Your task to perform on an android device: see tabs open on other devices in the chrome app Image 0: 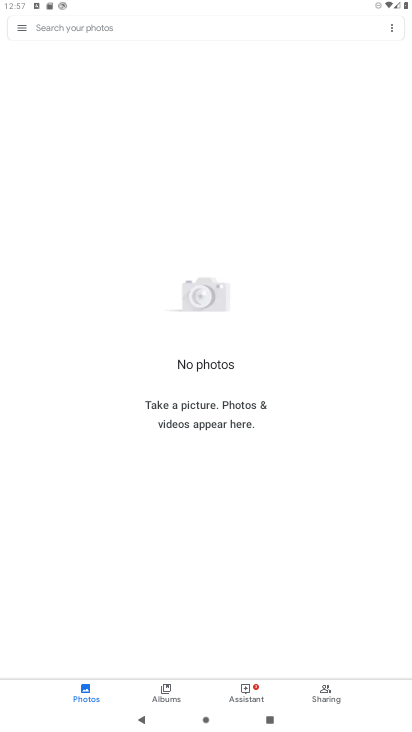
Step 0: press home button
Your task to perform on an android device: see tabs open on other devices in the chrome app Image 1: 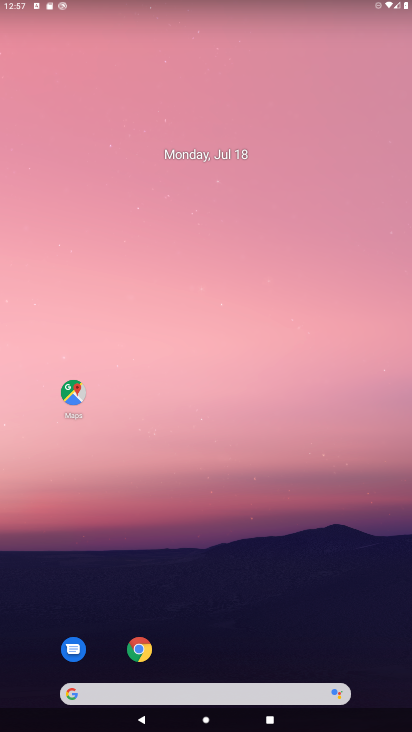
Step 1: click (140, 647)
Your task to perform on an android device: see tabs open on other devices in the chrome app Image 2: 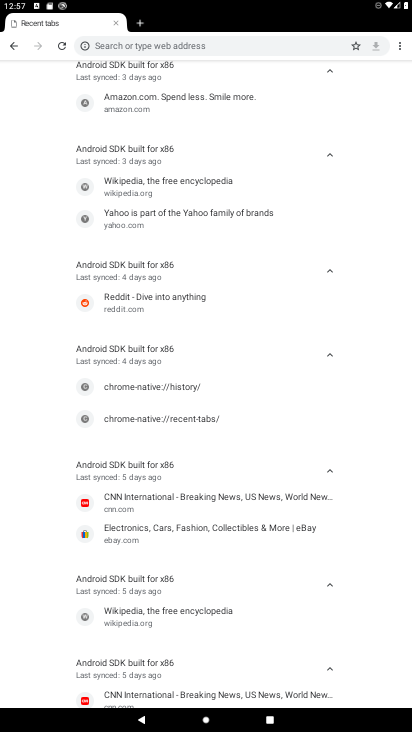
Step 2: click (401, 45)
Your task to perform on an android device: see tabs open on other devices in the chrome app Image 3: 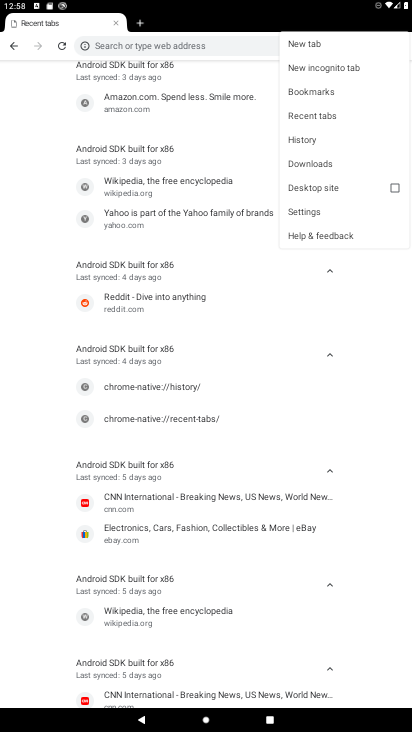
Step 3: click (312, 111)
Your task to perform on an android device: see tabs open on other devices in the chrome app Image 4: 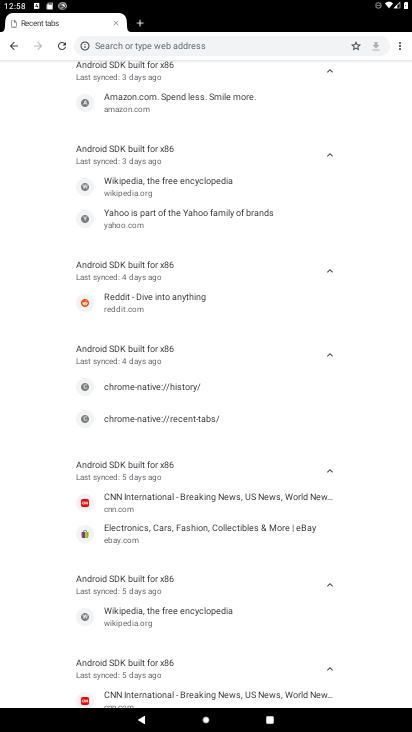
Step 4: task complete